Your task to perform on an android device: add a contact in the contacts app Image 0: 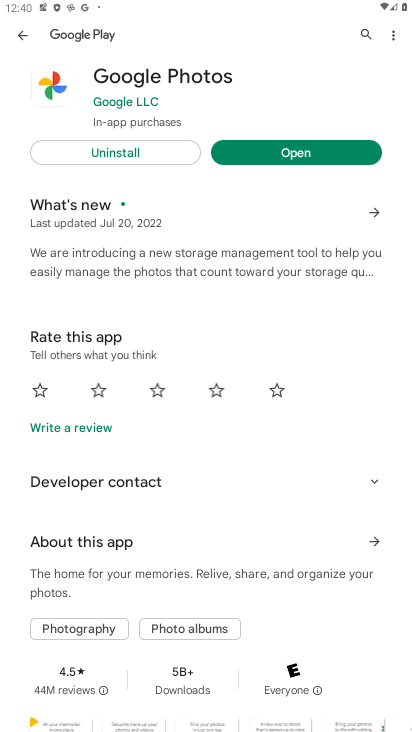
Step 0: press home button
Your task to perform on an android device: add a contact in the contacts app Image 1: 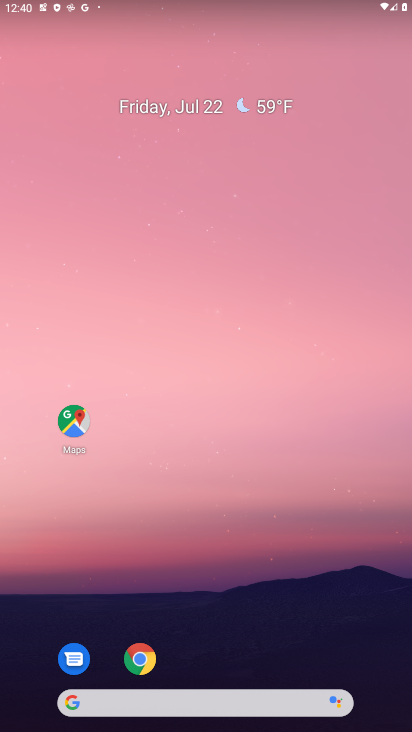
Step 1: drag from (344, 519) to (344, 57)
Your task to perform on an android device: add a contact in the contacts app Image 2: 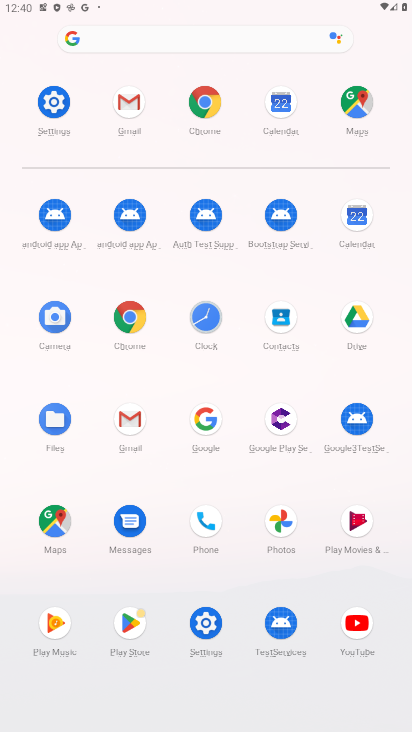
Step 2: click (216, 529)
Your task to perform on an android device: add a contact in the contacts app Image 3: 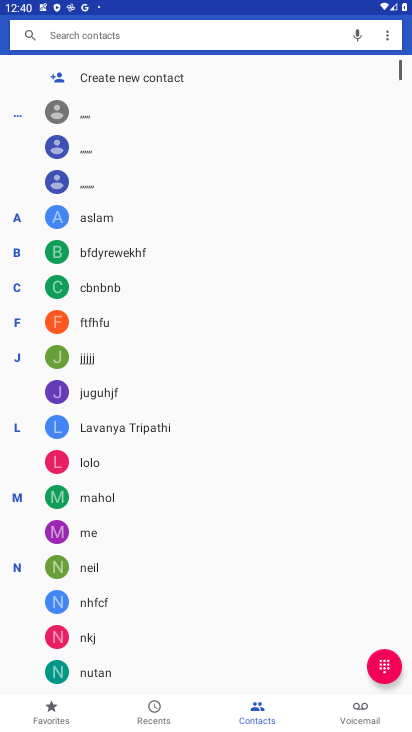
Step 3: click (107, 81)
Your task to perform on an android device: add a contact in the contacts app Image 4: 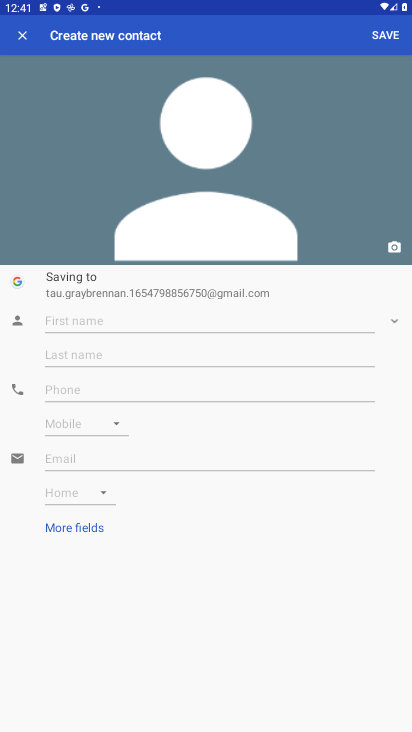
Step 4: click (93, 313)
Your task to perform on an android device: add a contact in the contacts app Image 5: 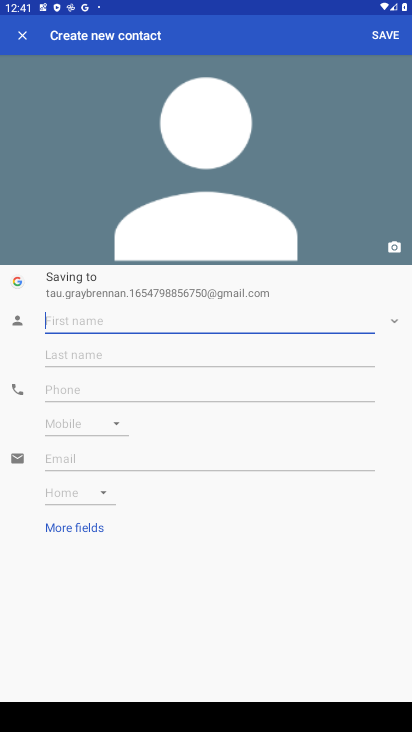
Step 5: type "tyuuy"
Your task to perform on an android device: add a contact in the contacts app Image 6: 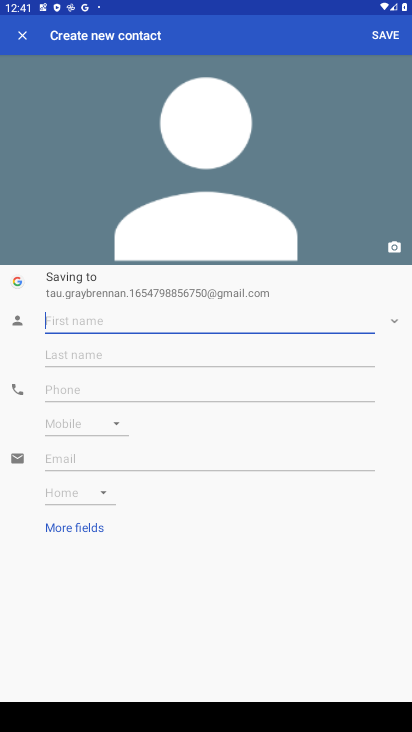
Step 6: click (138, 395)
Your task to perform on an android device: add a contact in the contacts app Image 7: 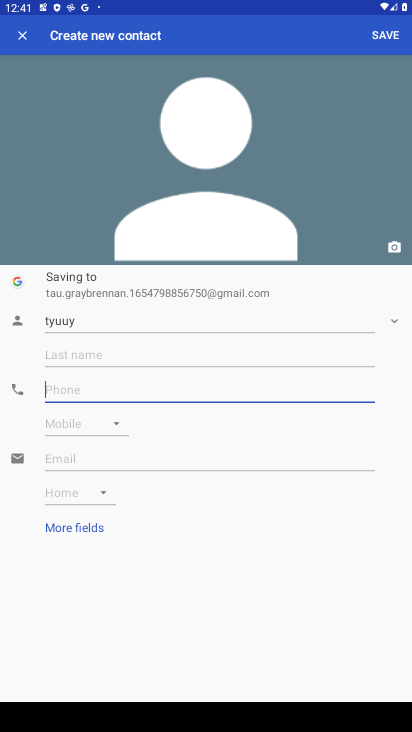
Step 7: type "78765456"
Your task to perform on an android device: add a contact in the contacts app Image 8: 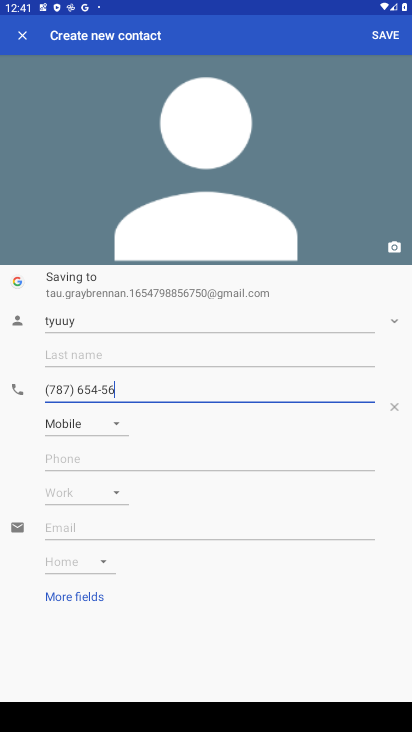
Step 8: click (393, 32)
Your task to perform on an android device: add a contact in the contacts app Image 9: 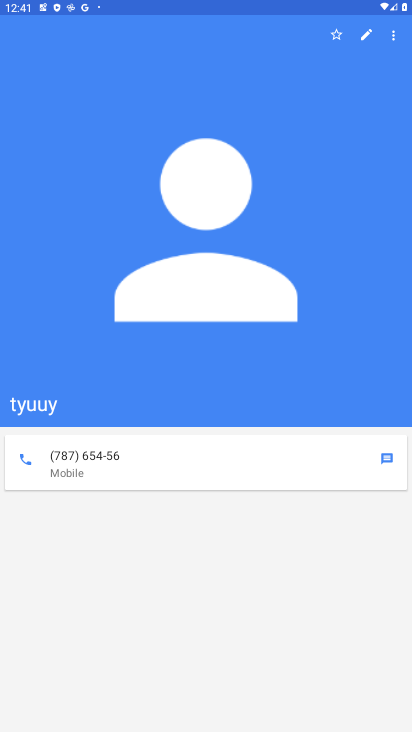
Step 9: task complete